Your task to perform on an android device: Go to Android settings Image 0: 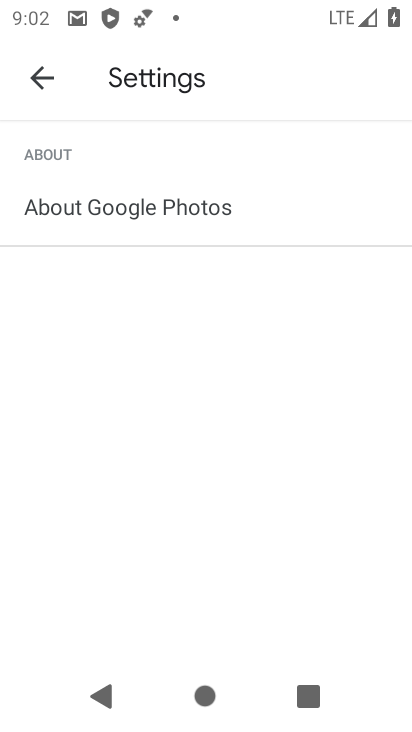
Step 0: press back button
Your task to perform on an android device: Go to Android settings Image 1: 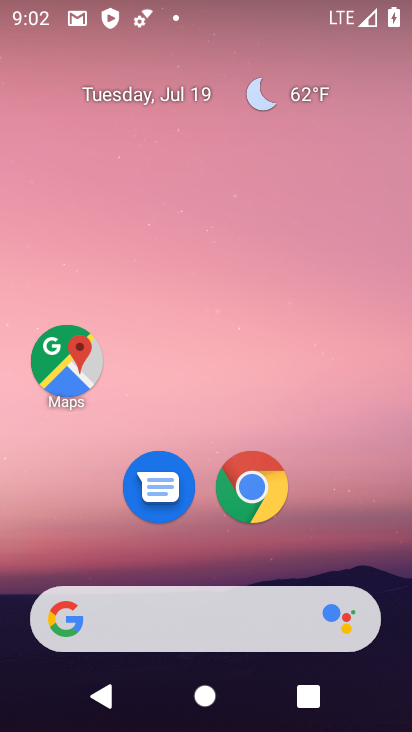
Step 1: drag from (218, 558) to (323, 17)
Your task to perform on an android device: Go to Android settings Image 2: 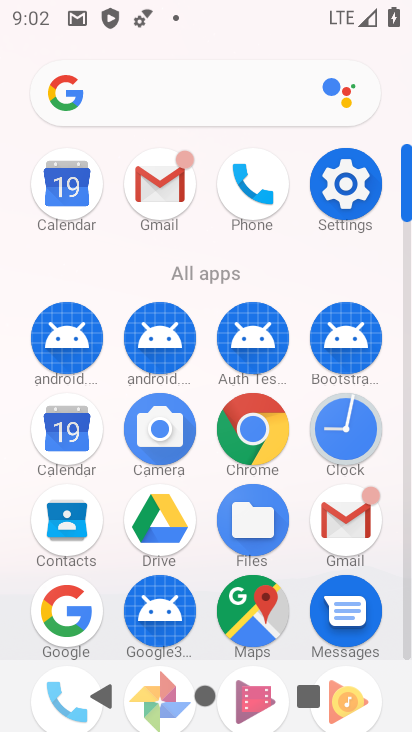
Step 2: click (350, 199)
Your task to perform on an android device: Go to Android settings Image 3: 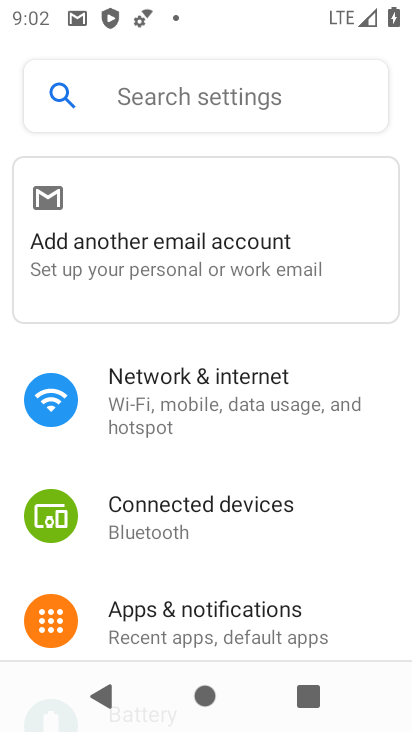
Step 3: drag from (219, 629) to (237, 27)
Your task to perform on an android device: Go to Android settings Image 4: 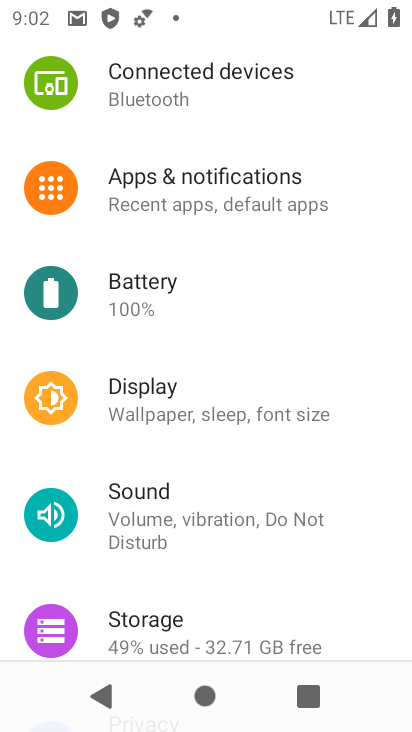
Step 4: drag from (129, 607) to (252, 38)
Your task to perform on an android device: Go to Android settings Image 5: 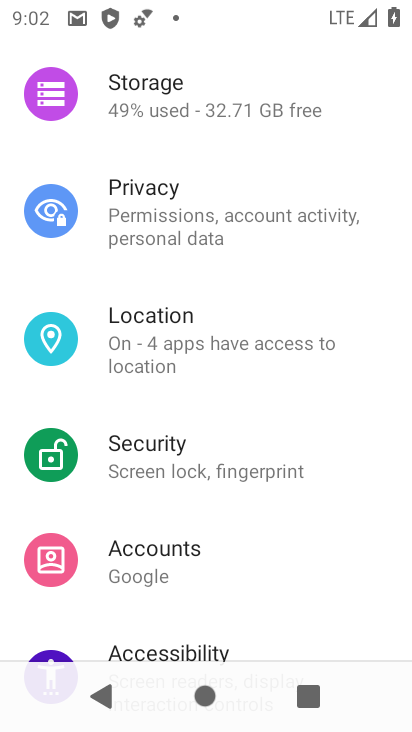
Step 5: drag from (169, 623) to (259, 11)
Your task to perform on an android device: Go to Android settings Image 6: 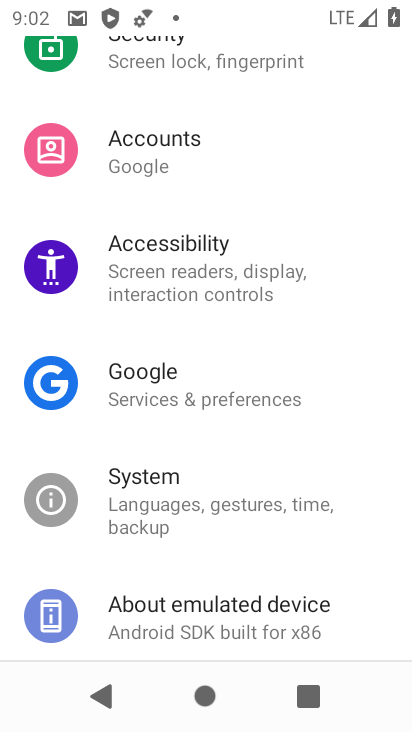
Step 6: click (226, 618)
Your task to perform on an android device: Go to Android settings Image 7: 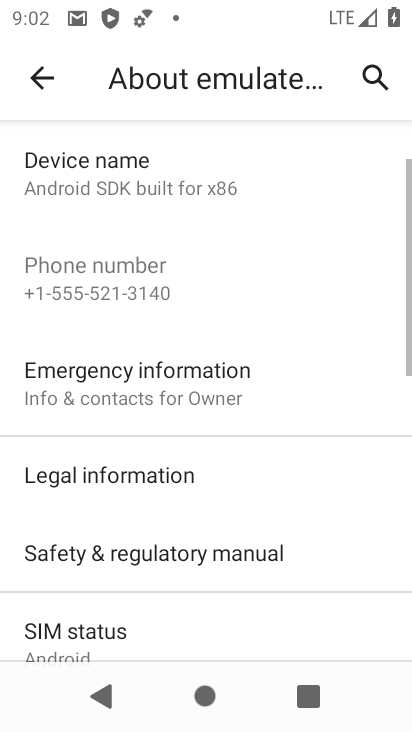
Step 7: task complete